Your task to perform on an android device: change alarm snooze length Image 0: 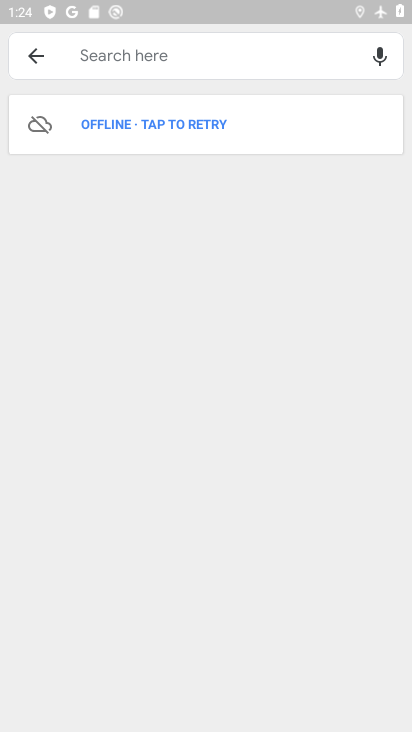
Step 0: press home button
Your task to perform on an android device: change alarm snooze length Image 1: 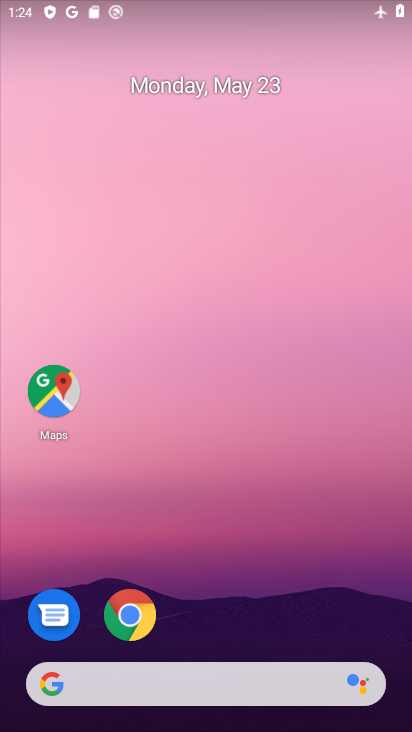
Step 1: drag from (220, 640) to (149, 92)
Your task to perform on an android device: change alarm snooze length Image 2: 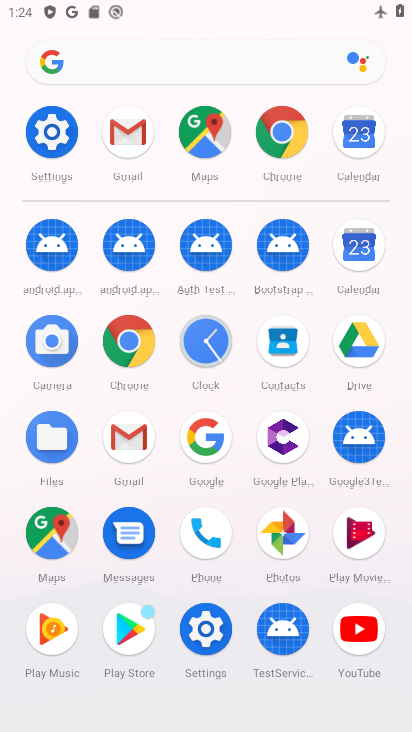
Step 2: click (209, 344)
Your task to perform on an android device: change alarm snooze length Image 3: 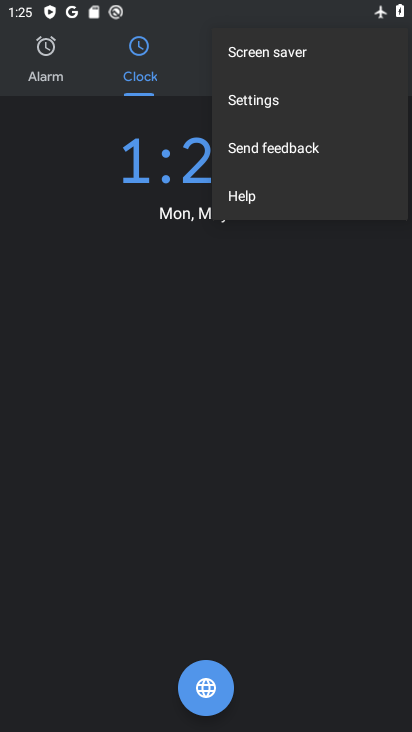
Step 3: click (264, 102)
Your task to perform on an android device: change alarm snooze length Image 4: 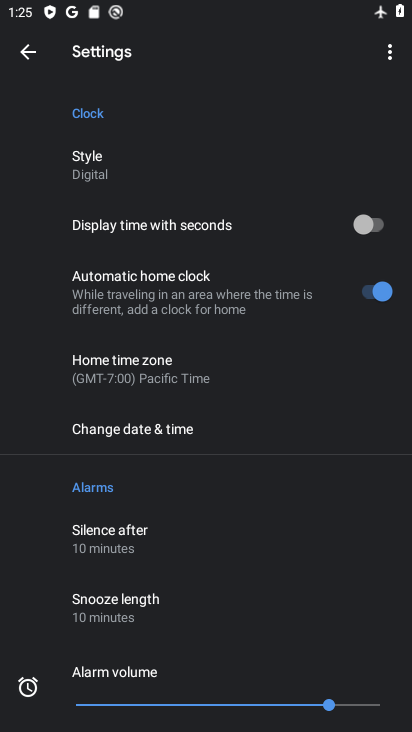
Step 4: click (104, 612)
Your task to perform on an android device: change alarm snooze length Image 5: 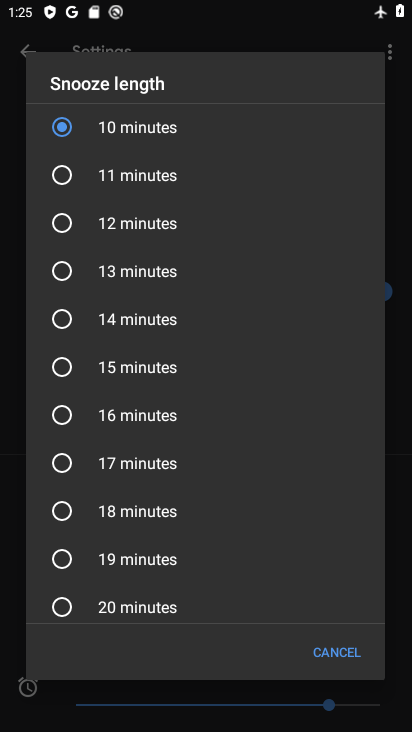
Step 5: click (104, 184)
Your task to perform on an android device: change alarm snooze length Image 6: 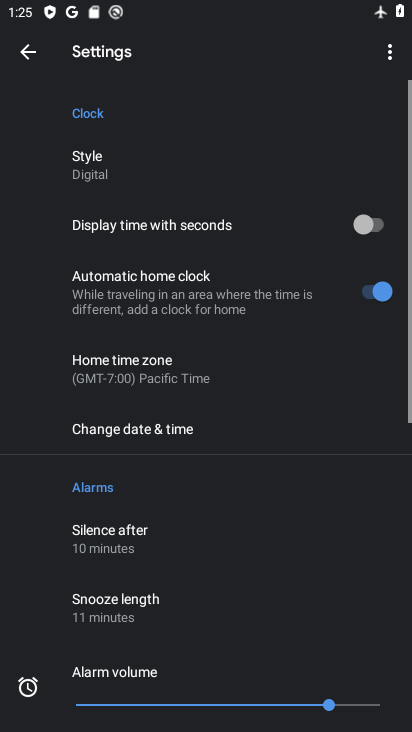
Step 6: task complete